Your task to perform on an android device: Open calendar and show me the third week of next month Image 0: 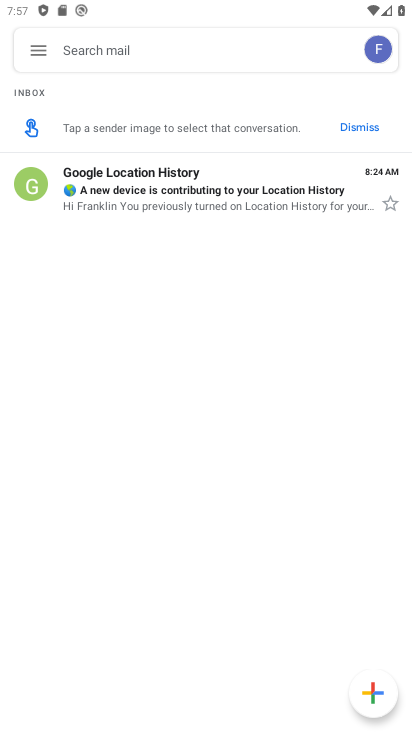
Step 0: press home button
Your task to perform on an android device: Open calendar and show me the third week of next month Image 1: 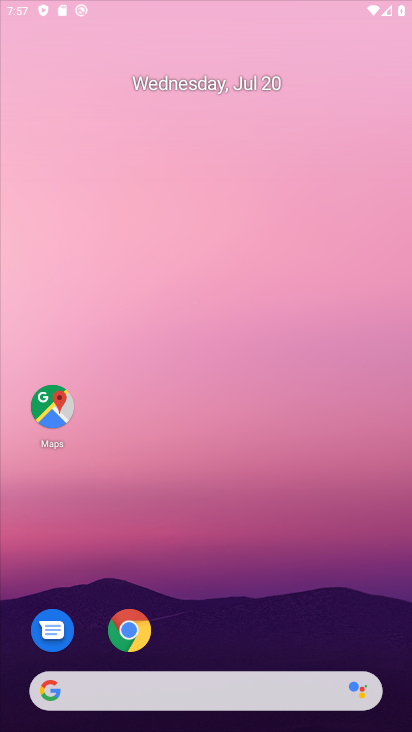
Step 1: drag from (199, 666) to (261, 143)
Your task to perform on an android device: Open calendar and show me the third week of next month Image 2: 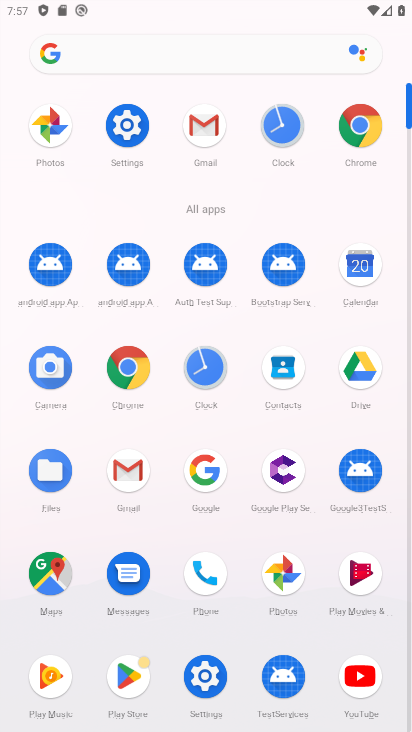
Step 2: click (358, 270)
Your task to perform on an android device: Open calendar and show me the third week of next month Image 3: 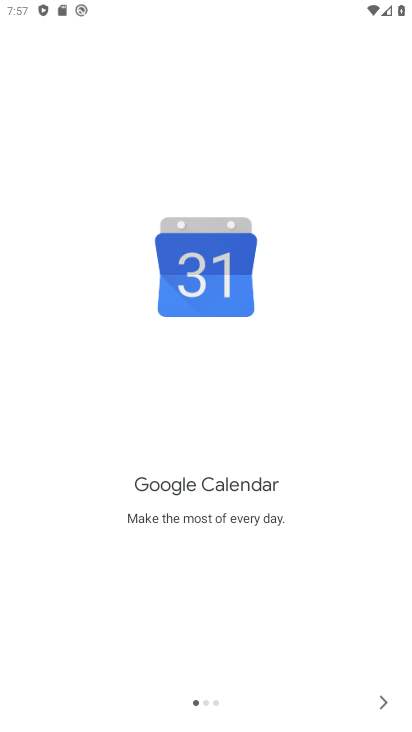
Step 3: click (380, 705)
Your task to perform on an android device: Open calendar and show me the third week of next month Image 4: 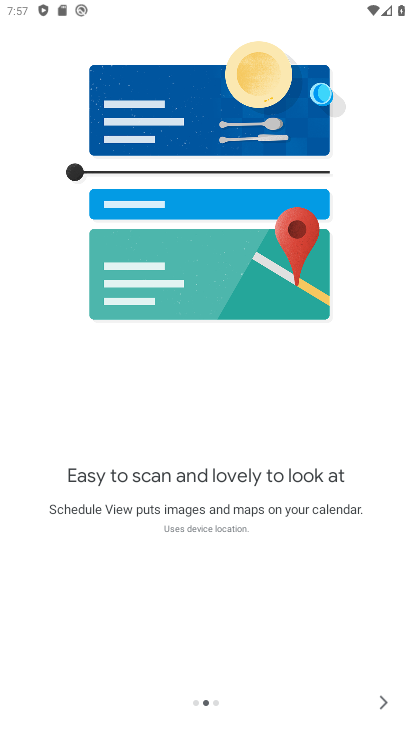
Step 4: click (380, 705)
Your task to perform on an android device: Open calendar and show me the third week of next month Image 5: 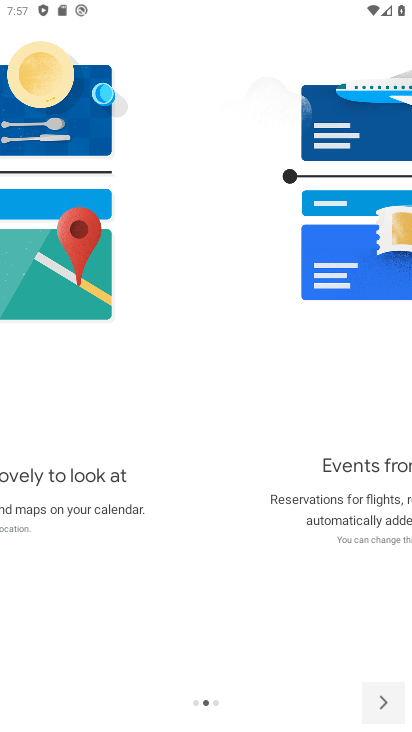
Step 5: click (380, 705)
Your task to perform on an android device: Open calendar and show me the third week of next month Image 6: 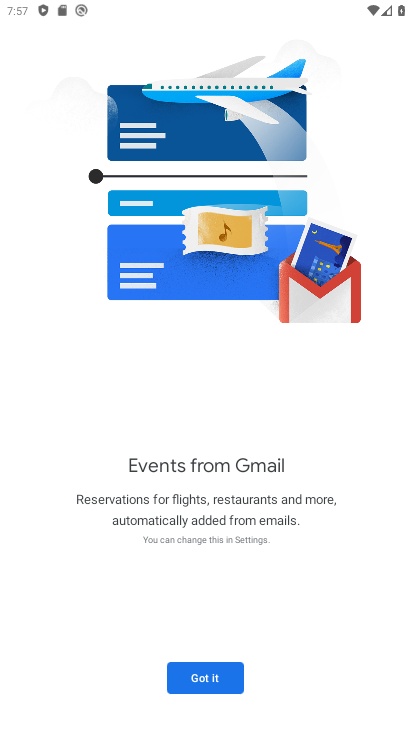
Step 6: click (190, 680)
Your task to perform on an android device: Open calendar and show me the third week of next month Image 7: 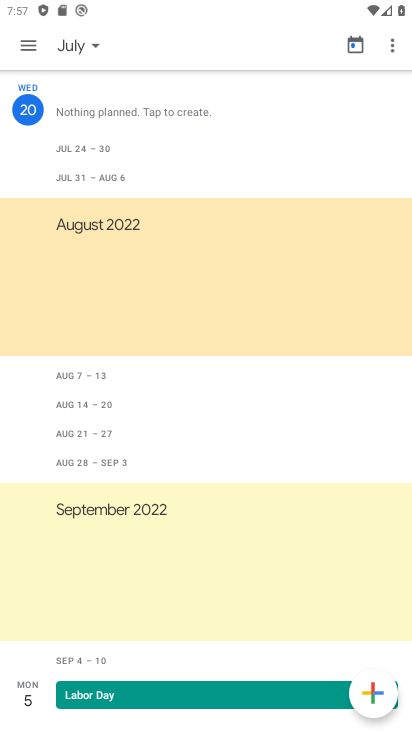
Step 7: click (87, 46)
Your task to perform on an android device: Open calendar and show me the third week of next month Image 8: 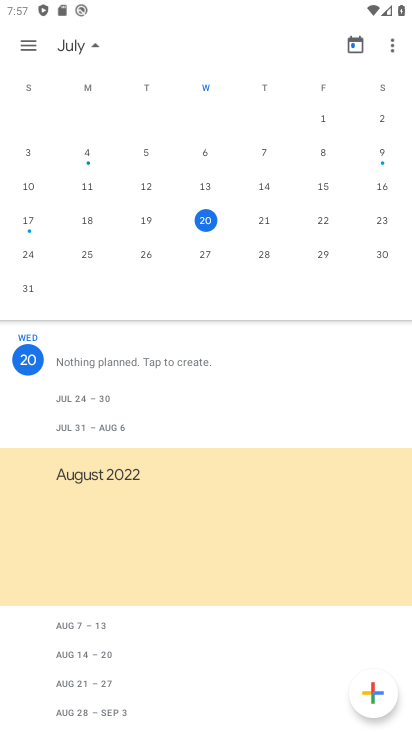
Step 8: drag from (387, 298) to (5, 258)
Your task to perform on an android device: Open calendar and show me the third week of next month Image 9: 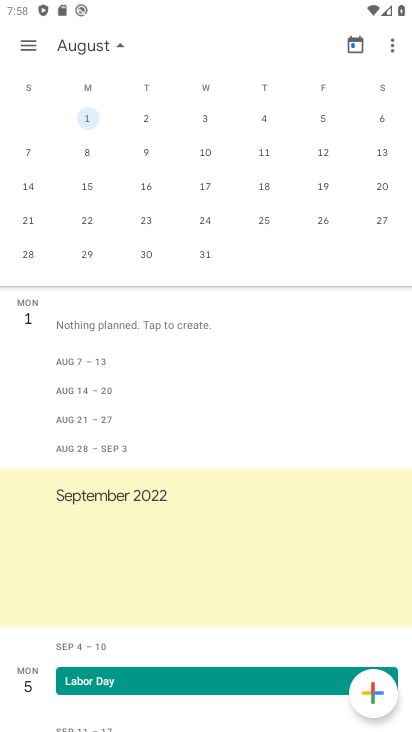
Step 9: click (266, 185)
Your task to perform on an android device: Open calendar and show me the third week of next month Image 10: 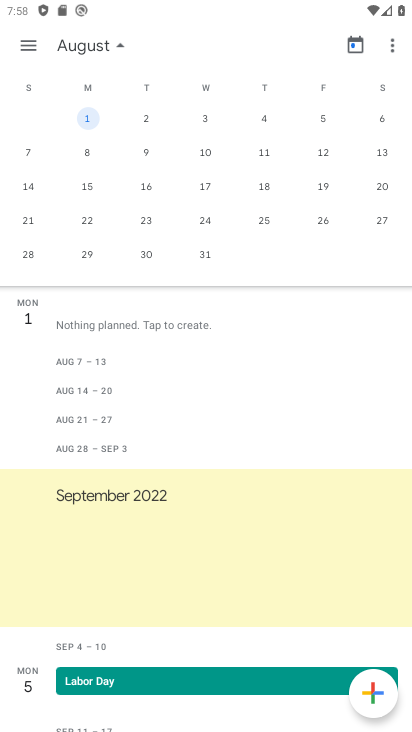
Step 10: click (262, 186)
Your task to perform on an android device: Open calendar and show me the third week of next month Image 11: 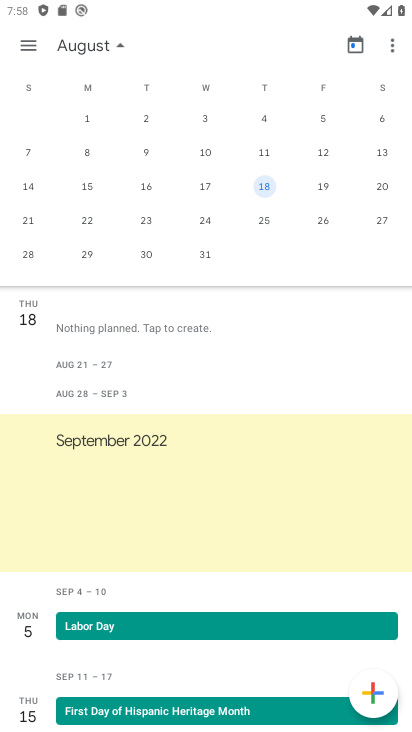
Step 11: task complete